Your task to perform on an android device: Open internet settings Image 0: 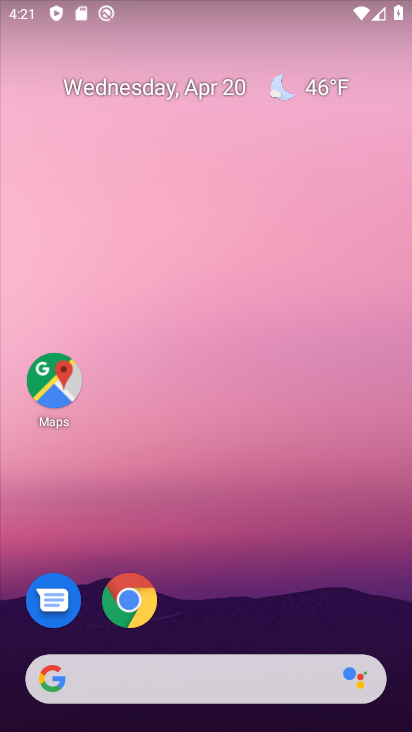
Step 0: drag from (222, 603) to (236, 46)
Your task to perform on an android device: Open internet settings Image 1: 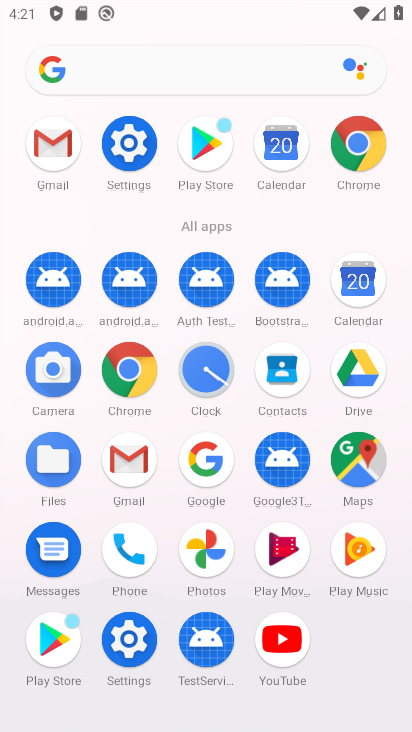
Step 1: click (128, 132)
Your task to perform on an android device: Open internet settings Image 2: 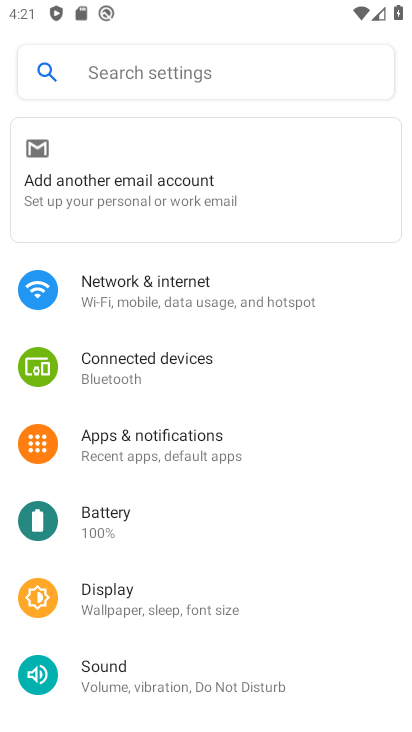
Step 2: click (164, 285)
Your task to perform on an android device: Open internet settings Image 3: 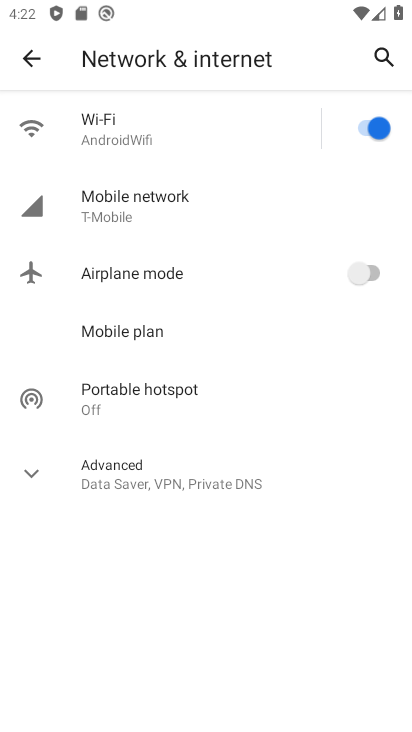
Step 3: click (33, 472)
Your task to perform on an android device: Open internet settings Image 4: 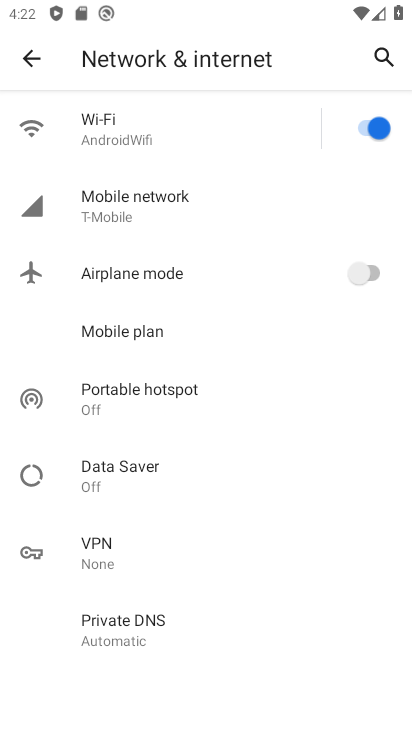
Step 4: task complete